Your task to perform on an android device: turn off notifications settings in the gmail app Image 0: 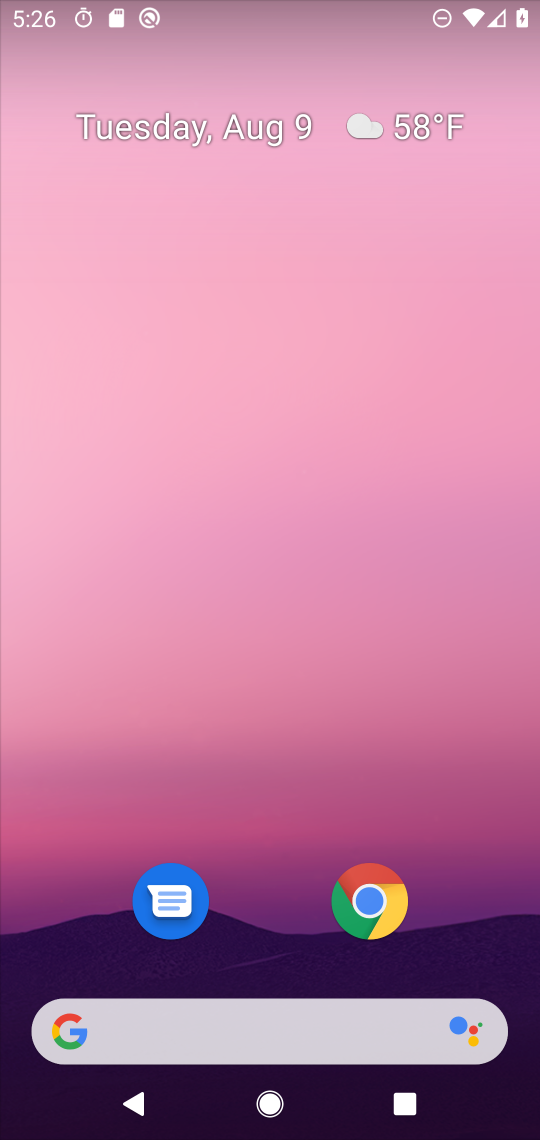
Step 0: drag from (249, 915) to (322, 173)
Your task to perform on an android device: turn off notifications settings in the gmail app Image 1: 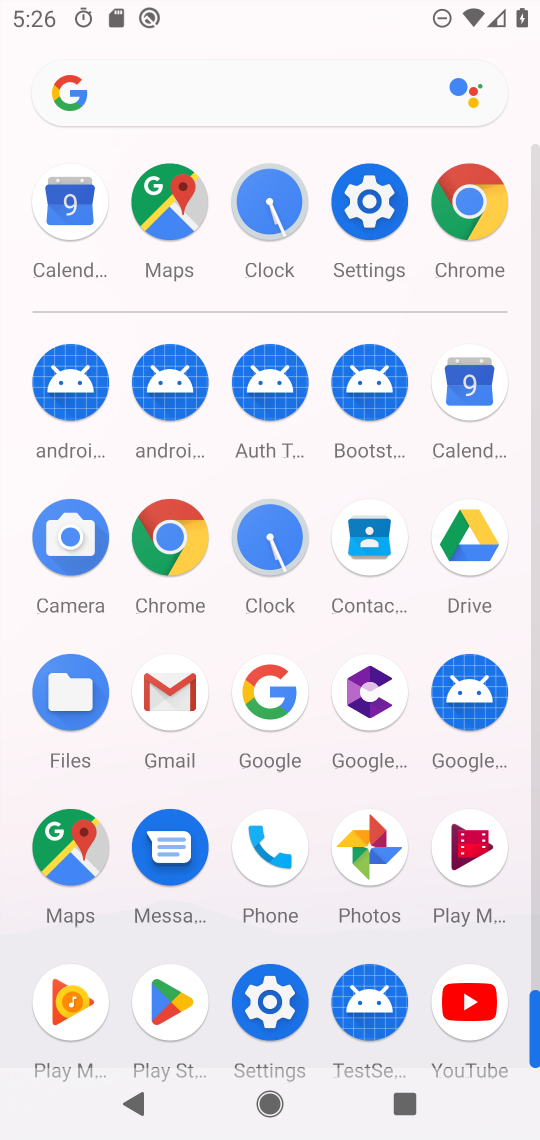
Step 1: click (163, 686)
Your task to perform on an android device: turn off notifications settings in the gmail app Image 2: 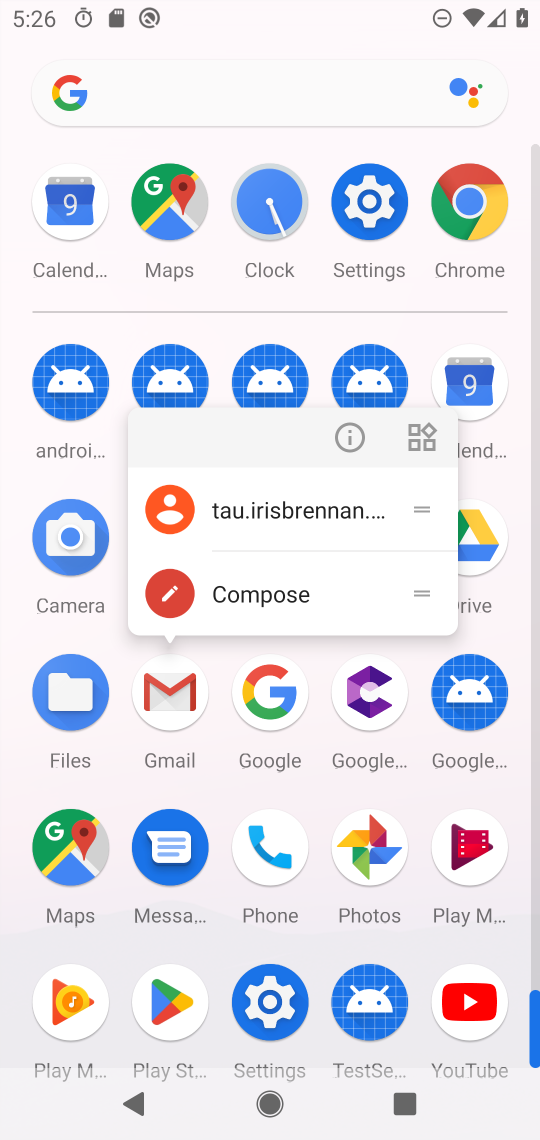
Step 2: click (347, 442)
Your task to perform on an android device: turn off notifications settings in the gmail app Image 3: 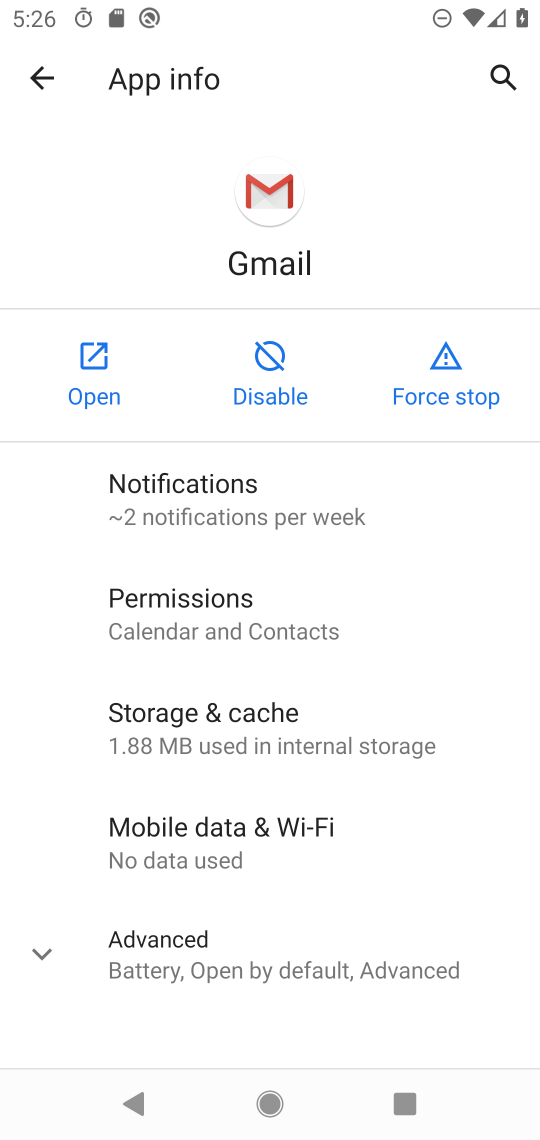
Step 3: click (255, 497)
Your task to perform on an android device: turn off notifications settings in the gmail app Image 4: 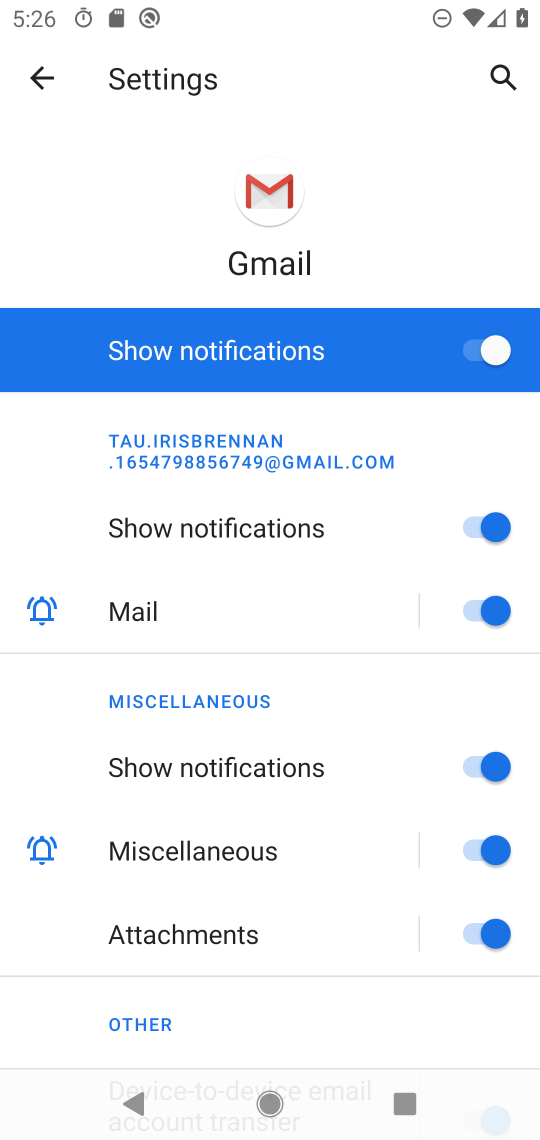
Step 4: click (373, 346)
Your task to perform on an android device: turn off notifications settings in the gmail app Image 5: 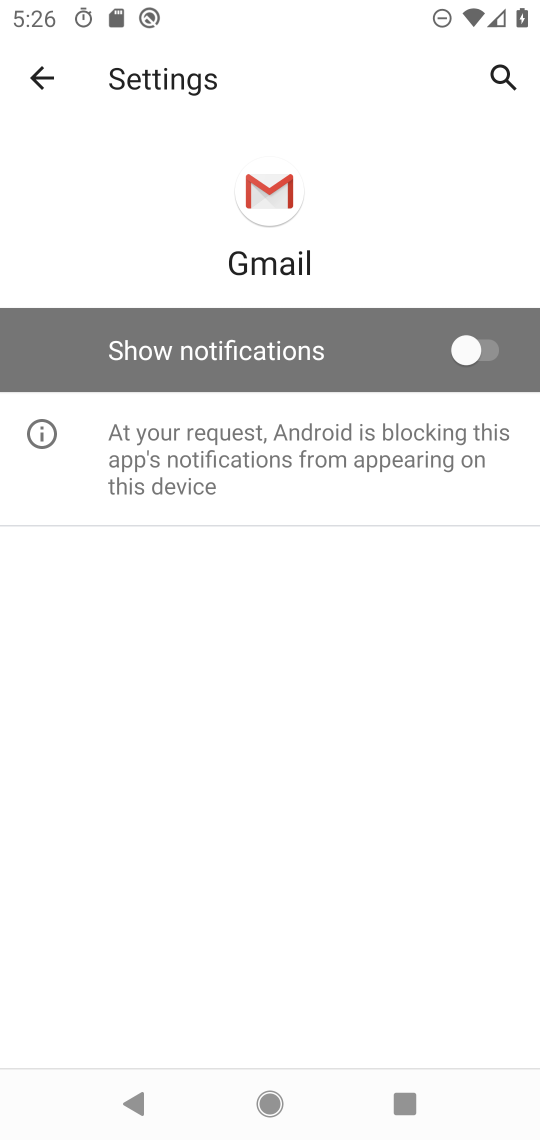
Step 5: task complete